Your task to perform on an android device: Check the news Image 0: 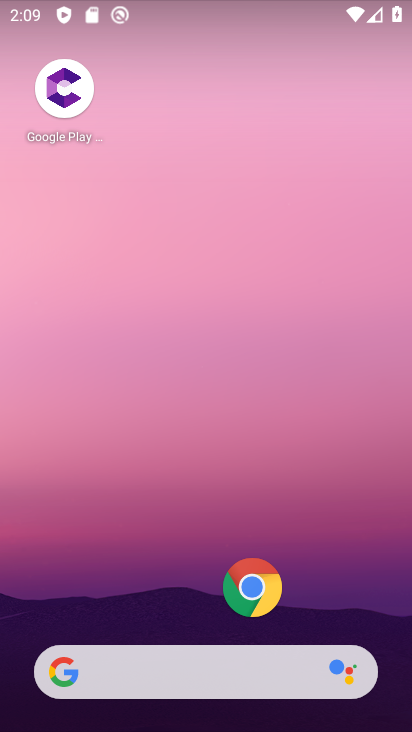
Step 0: click (254, 601)
Your task to perform on an android device: Check the news Image 1: 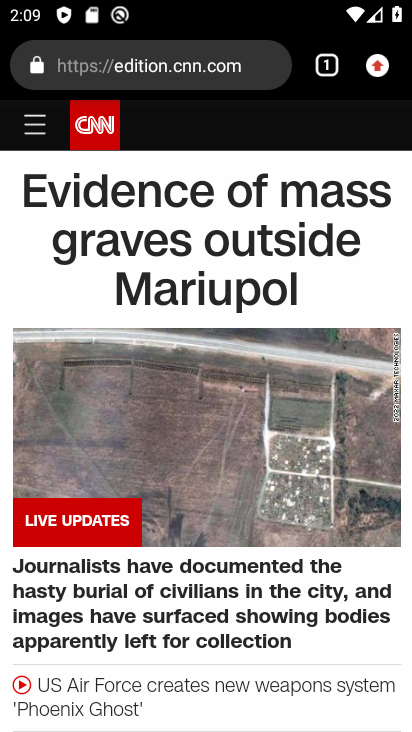
Step 1: click (199, 82)
Your task to perform on an android device: Check the news Image 2: 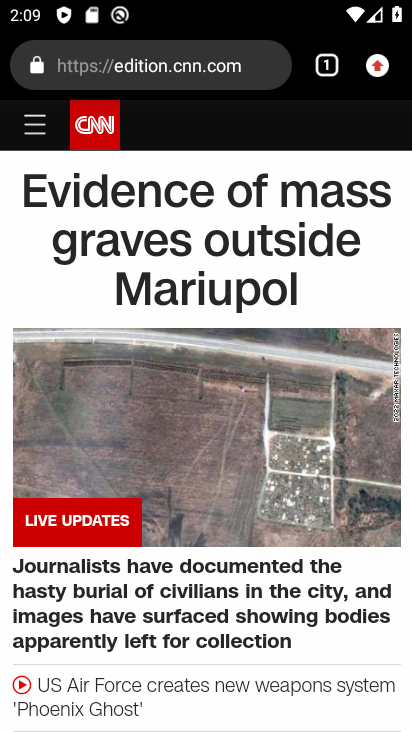
Step 2: click (199, 82)
Your task to perform on an android device: Check the news Image 3: 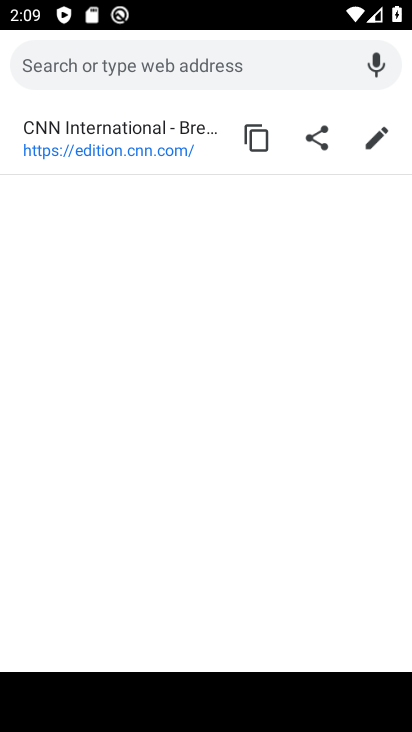
Step 3: type "news"
Your task to perform on an android device: Check the news Image 4: 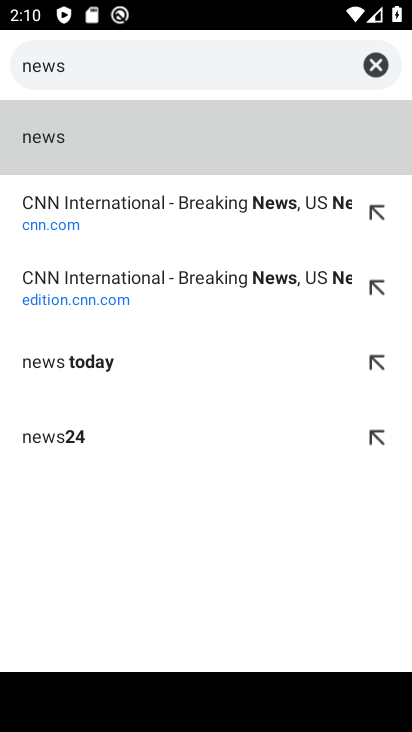
Step 4: click (126, 153)
Your task to perform on an android device: Check the news Image 5: 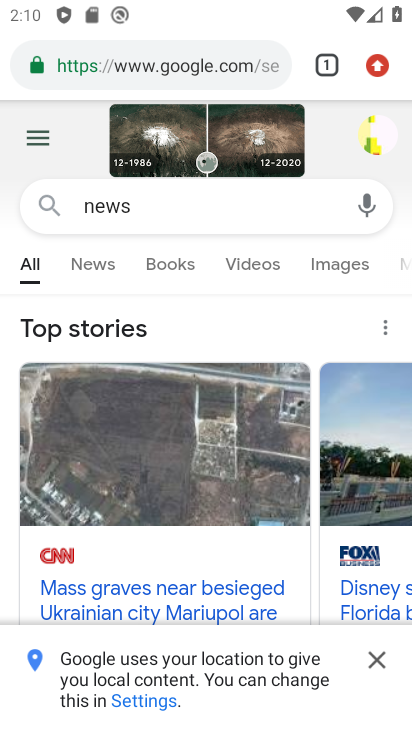
Step 5: task complete